Your task to perform on an android device: check the backup settings in the google photos Image 0: 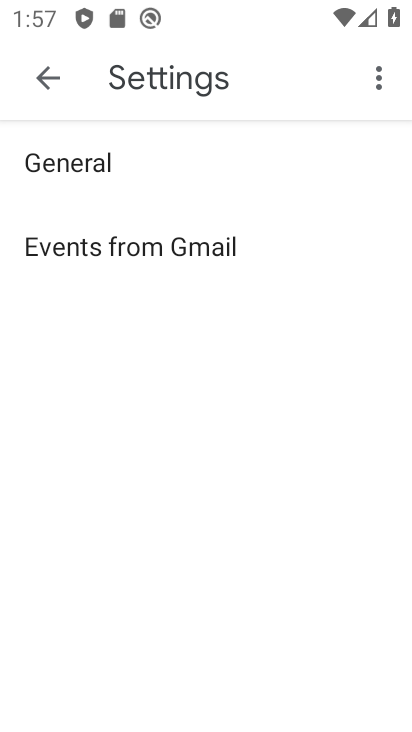
Step 0: press home button
Your task to perform on an android device: check the backup settings in the google photos Image 1: 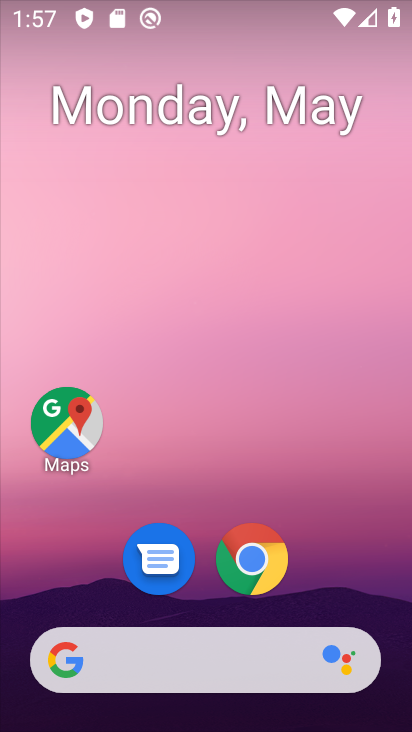
Step 1: drag from (362, 617) to (251, 0)
Your task to perform on an android device: check the backup settings in the google photos Image 2: 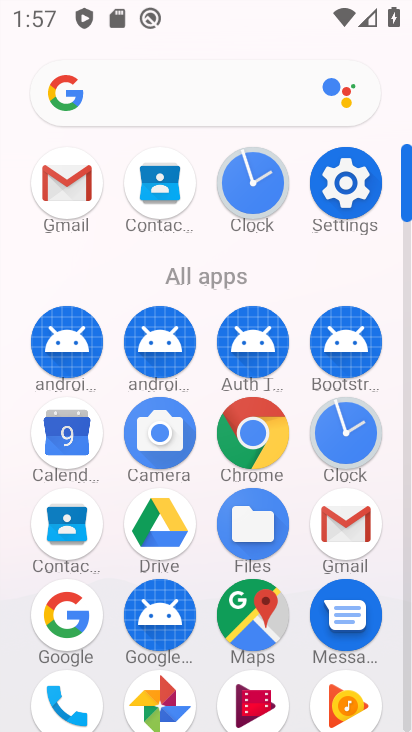
Step 2: click (169, 689)
Your task to perform on an android device: check the backup settings in the google photos Image 3: 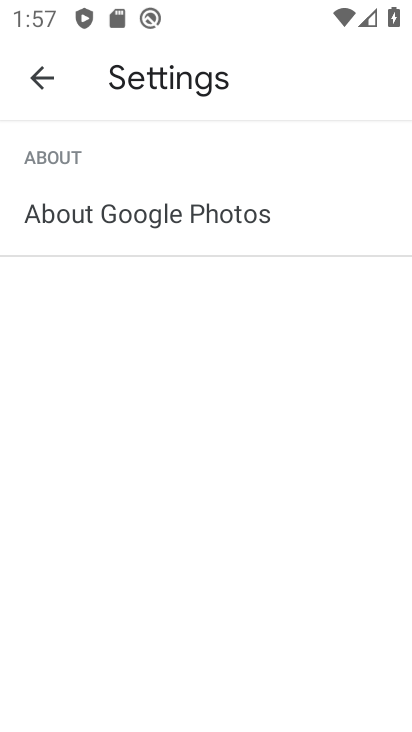
Step 3: click (37, 87)
Your task to perform on an android device: check the backup settings in the google photos Image 4: 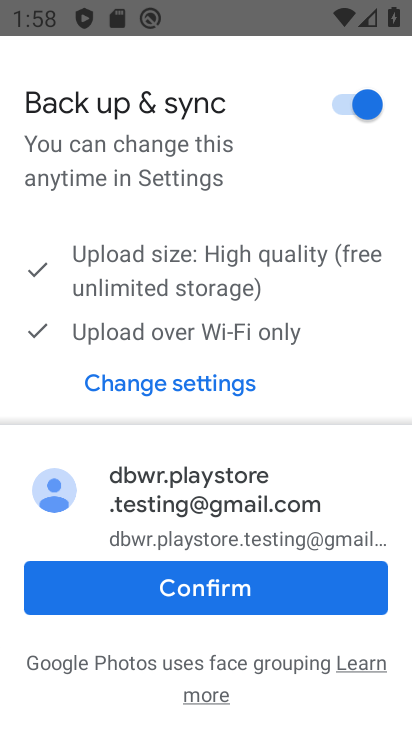
Step 4: click (194, 588)
Your task to perform on an android device: check the backup settings in the google photos Image 5: 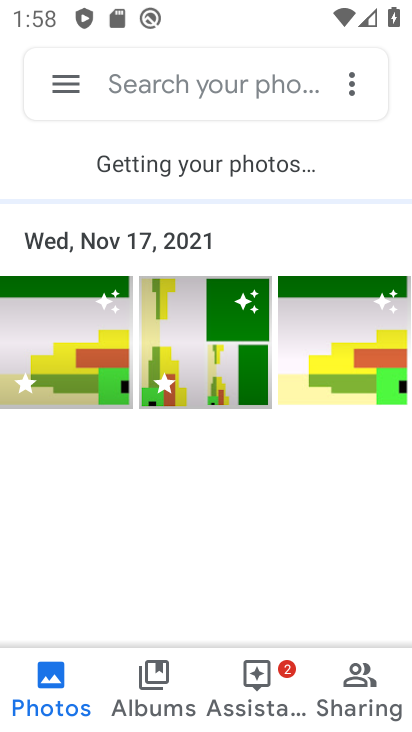
Step 5: click (68, 88)
Your task to perform on an android device: check the backup settings in the google photos Image 6: 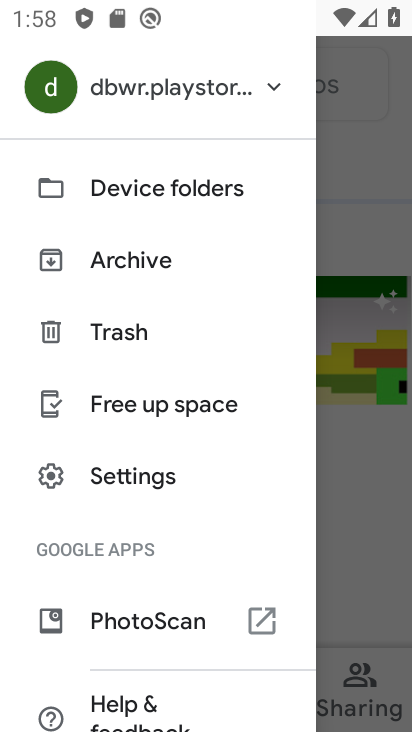
Step 6: click (96, 485)
Your task to perform on an android device: check the backup settings in the google photos Image 7: 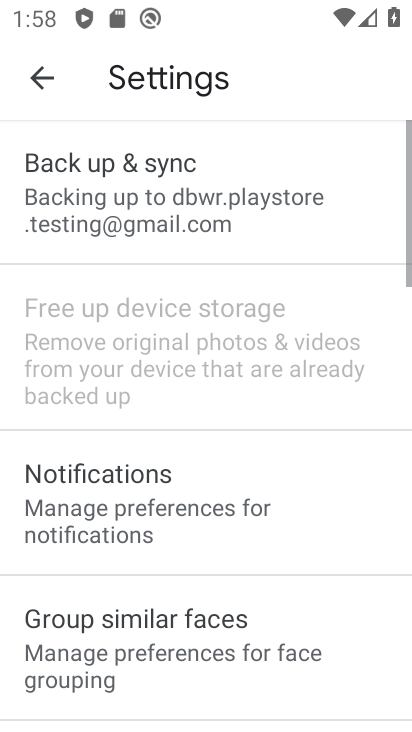
Step 7: click (113, 212)
Your task to perform on an android device: check the backup settings in the google photos Image 8: 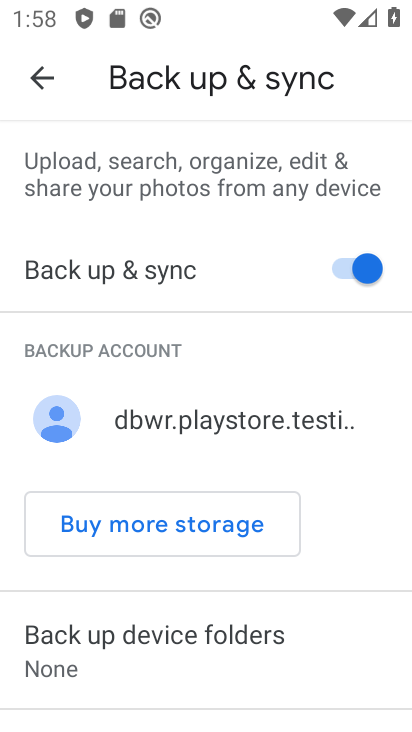
Step 8: task complete